Your task to perform on an android device: Do I have any events tomorrow? Image 0: 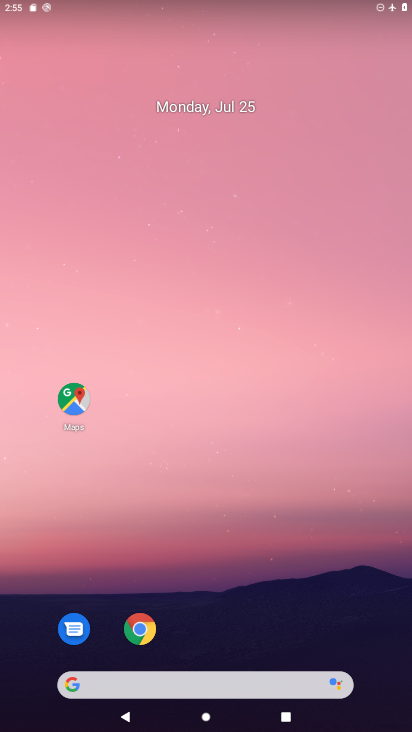
Step 0: drag from (291, 559) to (330, 89)
Your task to perform on an android device: Do I have any events tomorrow? Image 1: 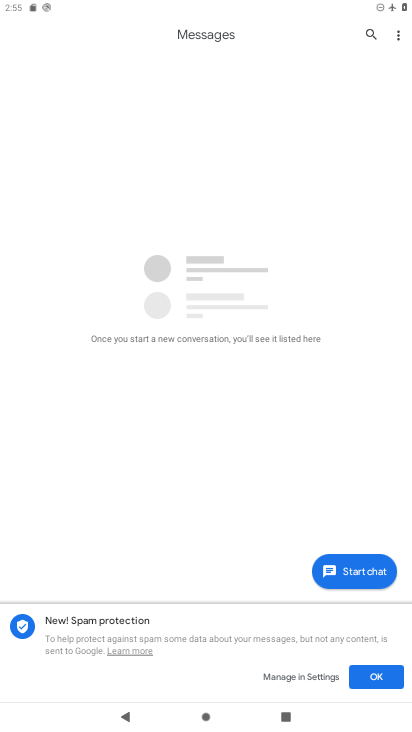
Step 1: press home button
Your task to perform on an android device: Do I have any events tomorrow? Image 2: 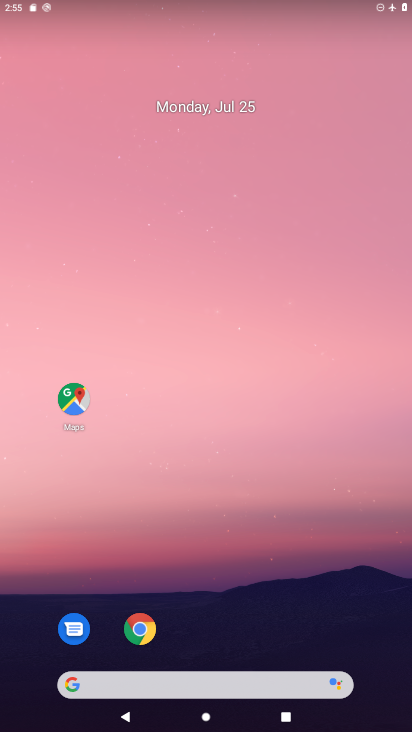
Step 2: drag from (215, 663) to (256, 82)
Your task to perform on an android device: Do I have any events tomorrow? Image 3: 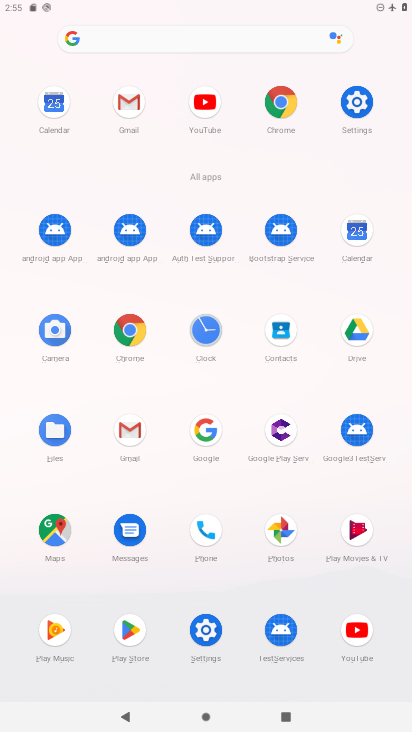
Step 3: click (363, 235)
Your task to perform on an android device: Do I have any events tomorrow? Image 4: 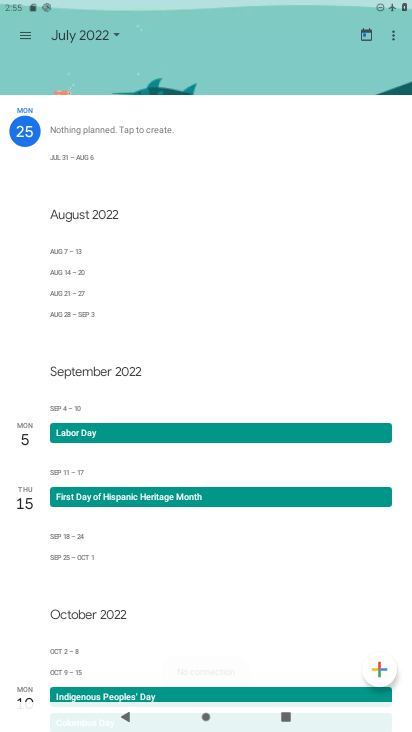
Step 4: click (108, 33)
Your task to perform on an android device: Do I have any events tomorrow? Image 5: 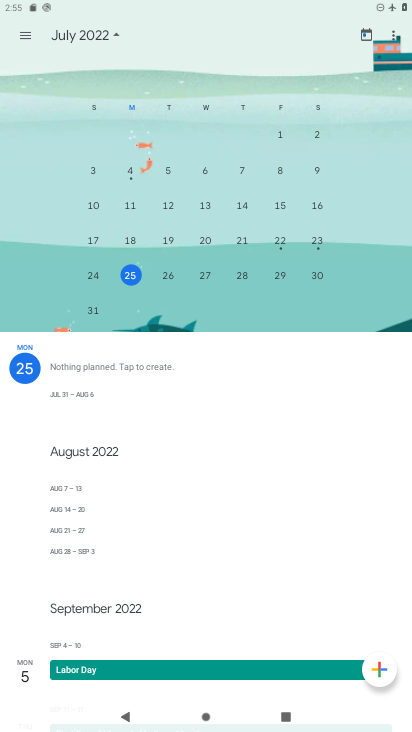
Step 5: click (166, 272)
Your task to perform on an android device: Do I have any events tomorrow? Image 6: 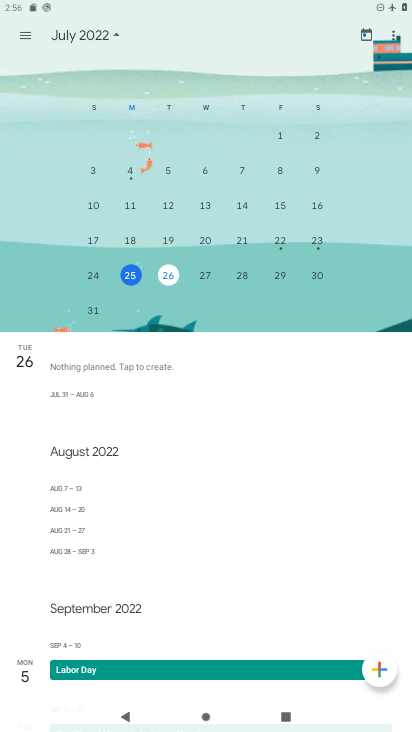
Step 6: task complete